Your task to perform on an android device: turn off improve location accuracy Image 0: 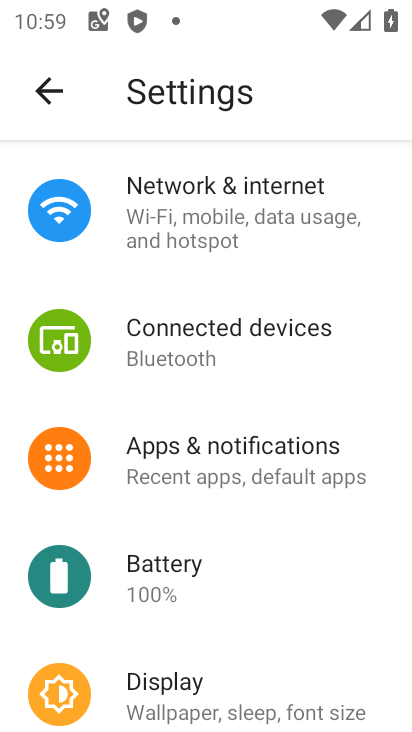
Step 0: drag from (261, 659) to (259, 215)
Your task to perform on an android device: turn off improve location accuracy Image 1: 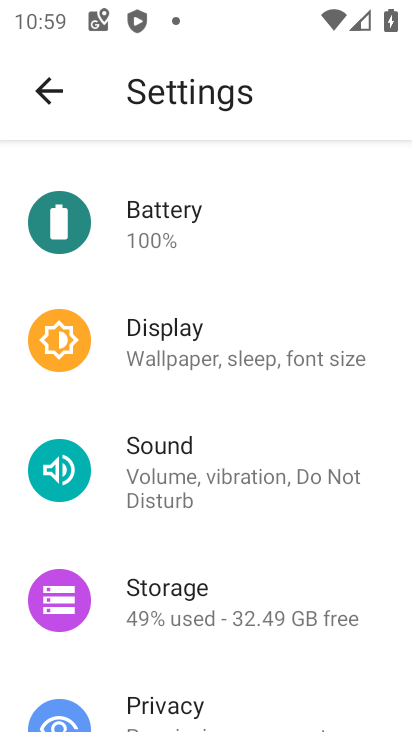
Step 1: drag from (272, 598) to (295, 205)
Your task to perform on an android device: turn off improve location accuracy Image 2: 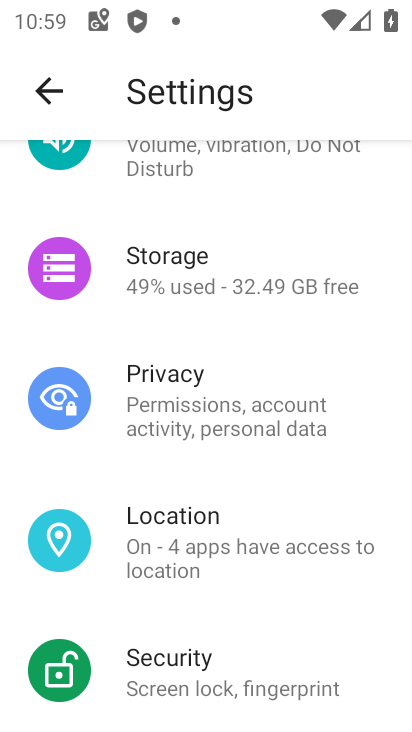
Step 2: click (267, 526)
Your task to perform on an android device: turn off improve location accuracy Image 3: 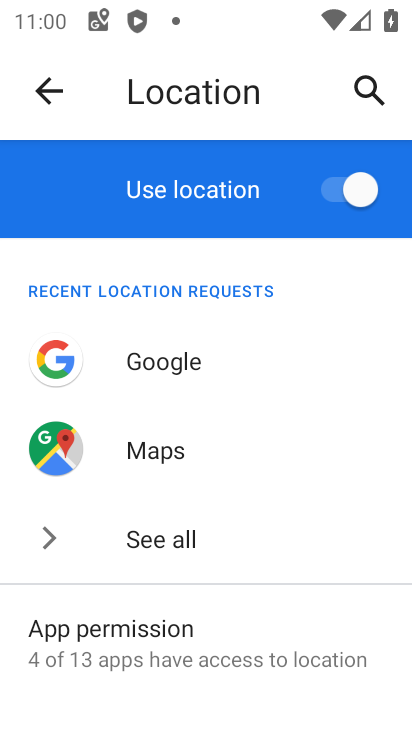
Step 3: drag from (283, 618) to (255, 208)
Your task to perform on an android device: turn off improve location accuracy Image 4: 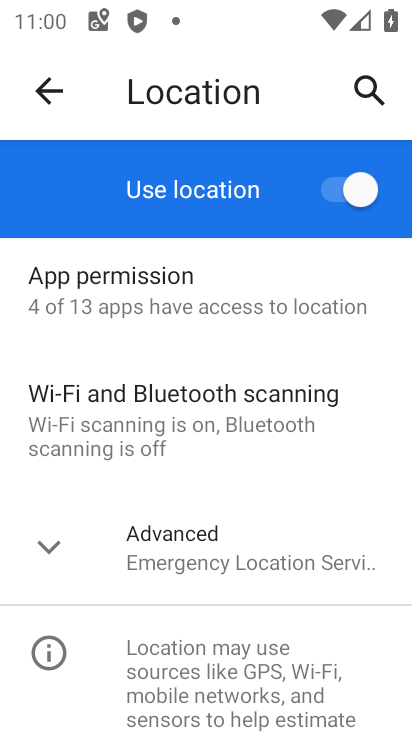
Step 4: click (225, 557)
Your task to perform on an android device: turn off improve location accuracy Image 5: 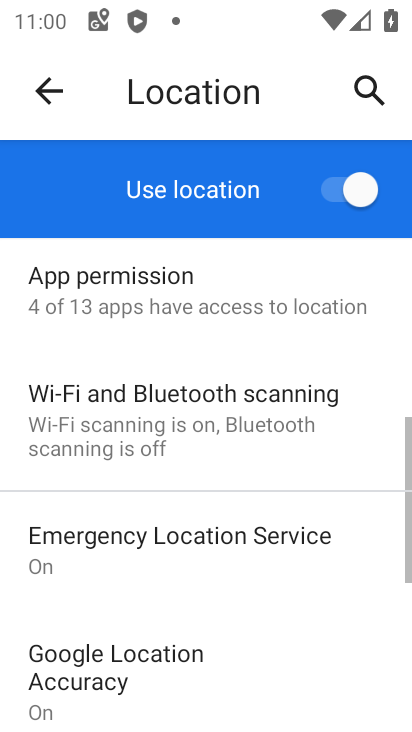
Step 5: drag from (223, 622) to (247, 308)
Your task to perform on an android device: turn off improve location accuracy Image 6: 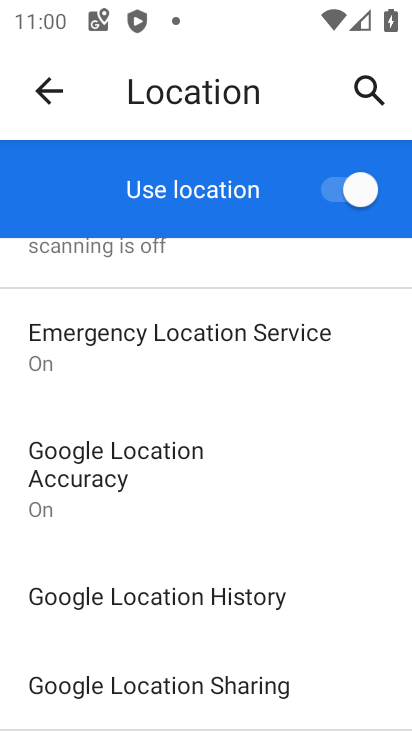
Step 6: click (180, 471)
Your task to perform on an android device: turn off improve location accuracy Image 7: 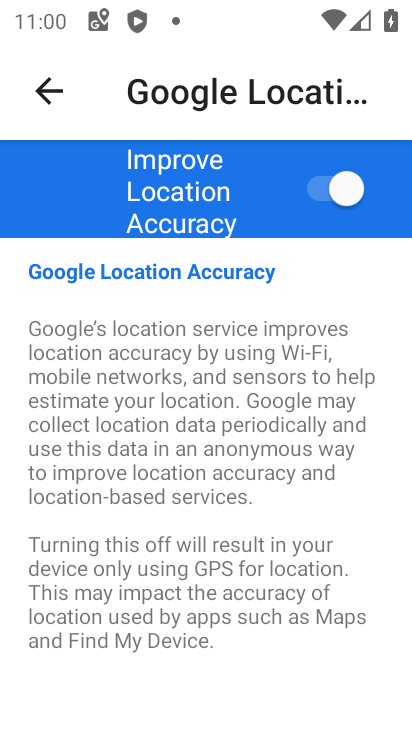
Step 7: click (361, 185)
Your task to perform on an android device: turn off improve location accuracy Image 8: 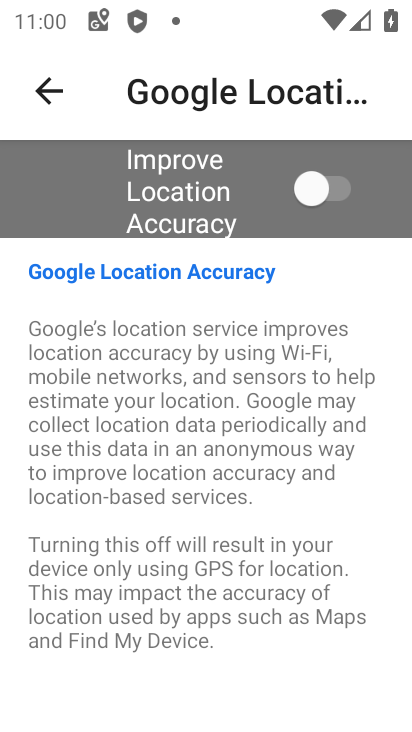
Step 8: task complete